Your task to perform on an android device: turn on bluetooth scan Image 0: 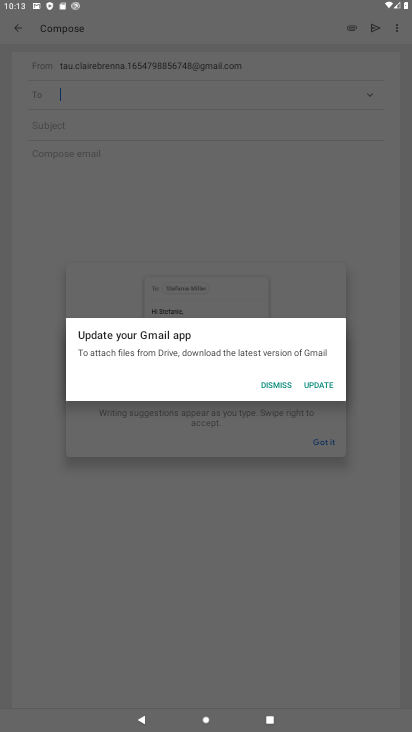
Step 0: press home button
Your task to perform on an android device: turn on bluetooth scan Image 1: 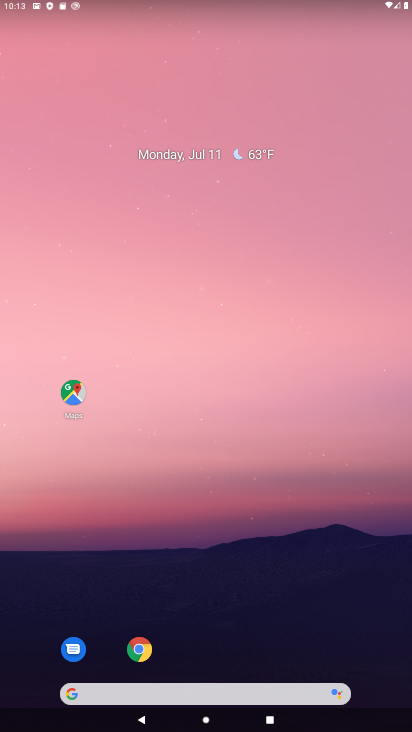
Step 1: drag from (354, 3) to (329, 582)
Your task to perform on an android device: turn on bluetooth scan Image 2: 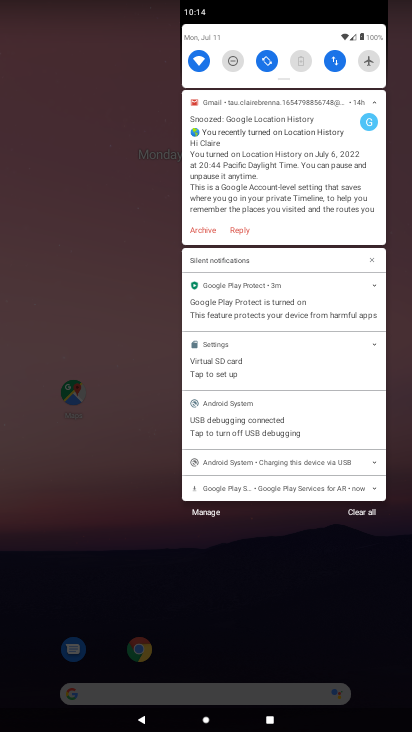
Step 2: drag from (298, 76) to (258, 569)
Your task to perform on an android device: turn on bluetooth scan Image 3: 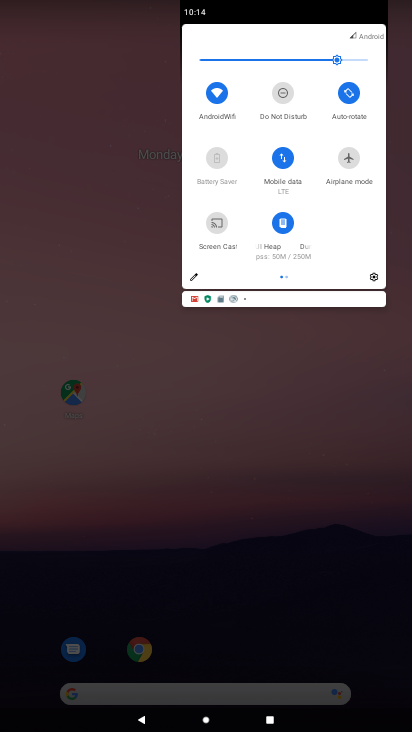
Step 3: click (372, 270)
Your task to perform on an android device: turn on bluetooth scan Image 4: 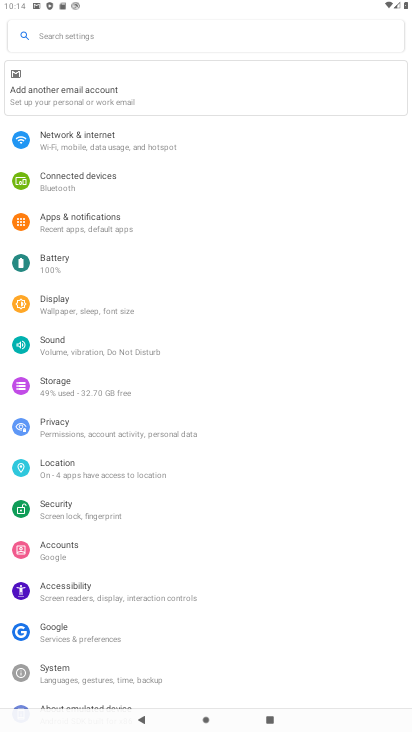
Step 4: click (85, 466)
Your task to perform on an android device: turn on bluetooth scan Image 5: 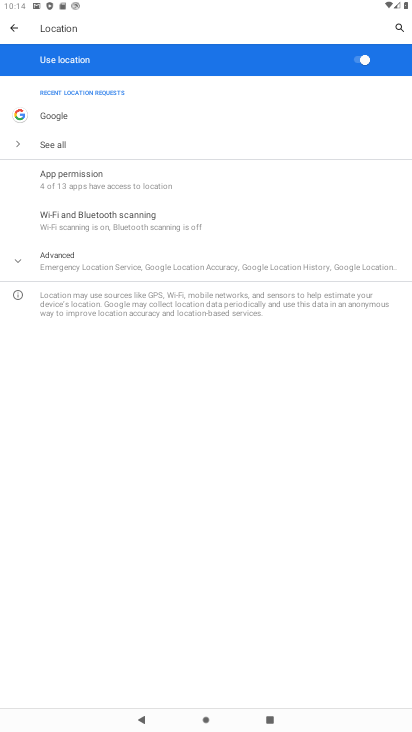
Step 5: click (122, 262)
Your task to perform on an android device: turn on bluetooth scan Image 6: 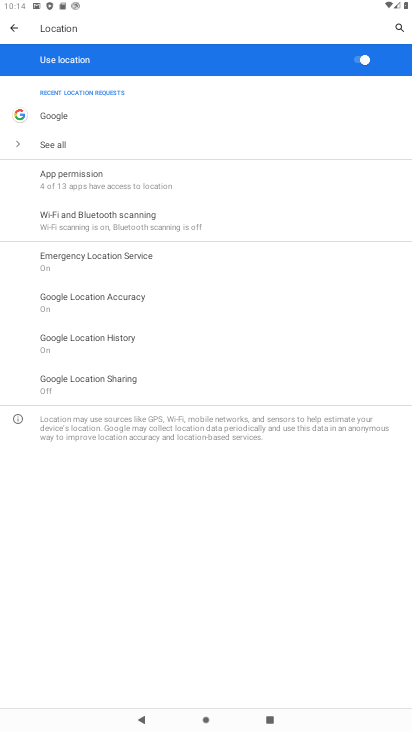
Step 6: click (123, 215)
Your task to perform on an android device: turn on bluetooth scan Image 7: 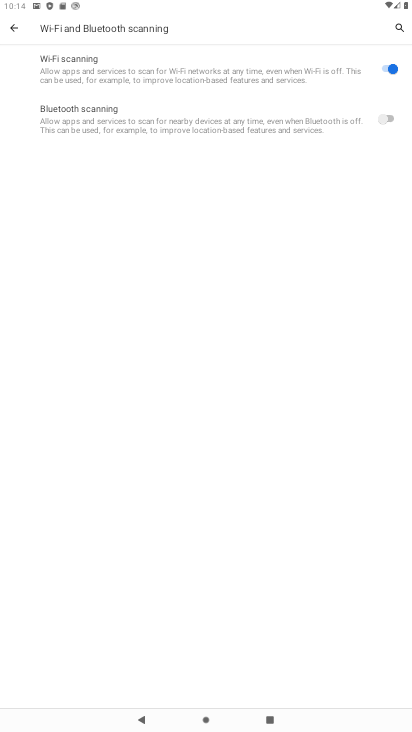
Step 7: task complete